Your task to perform on an android device: toggle wifi Image 0: 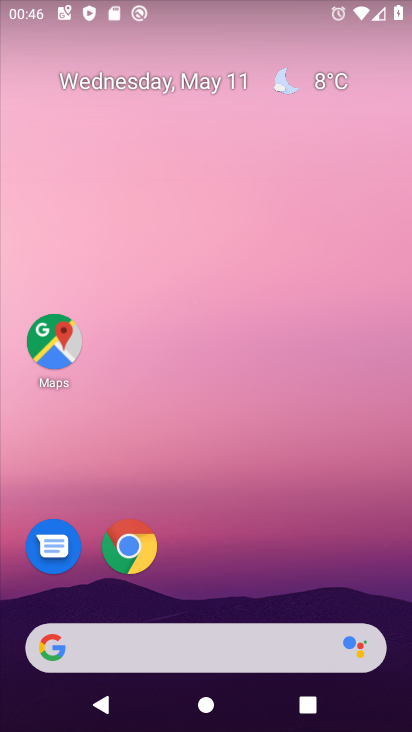
Step 0: drag from (223, 661) to (369, 62)
Your task to perform on an android device: toggle wifi Image 1: 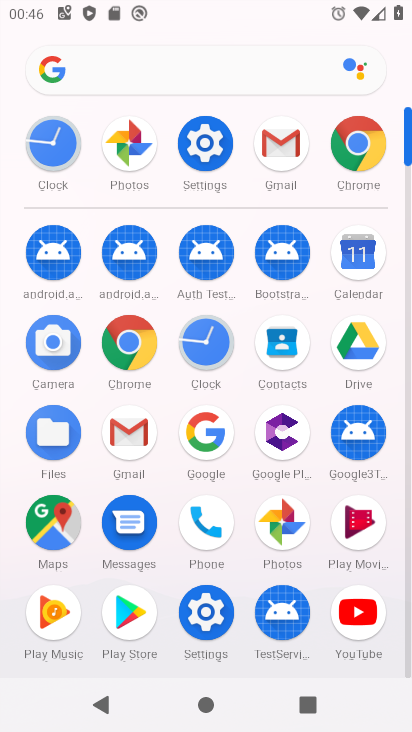
Step 1: click (200, 155)
Your task to perform on an android device: toggle wifi Image 2: 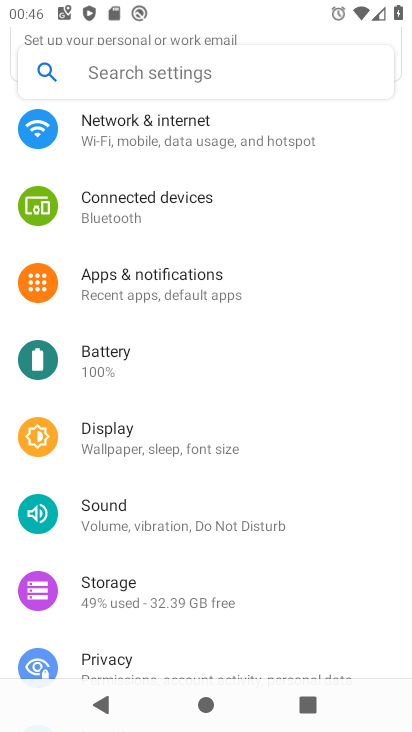
Step 2: click (213, 134)
Your task to perform on an android device: toggle wifi Image 3: 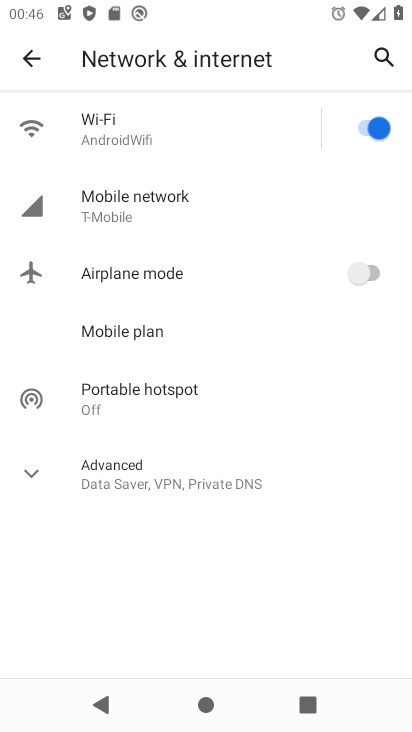
Step 3: click (359, 126)
Your task to perform on an android device: toggle wifi Image 4: 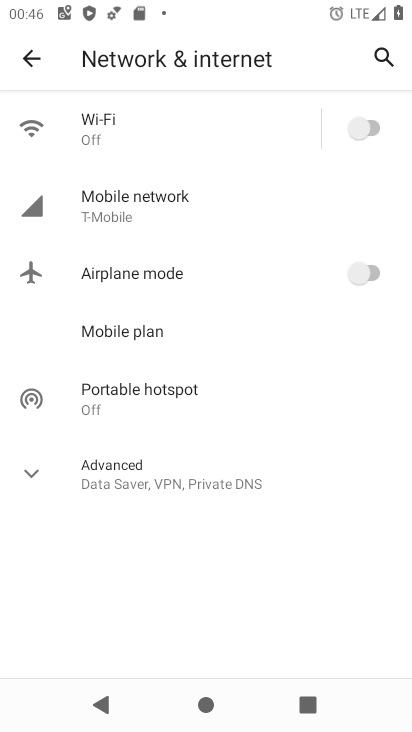
Step 4: task complete